Your task to perform on an android device: Open sound settings Image 0: 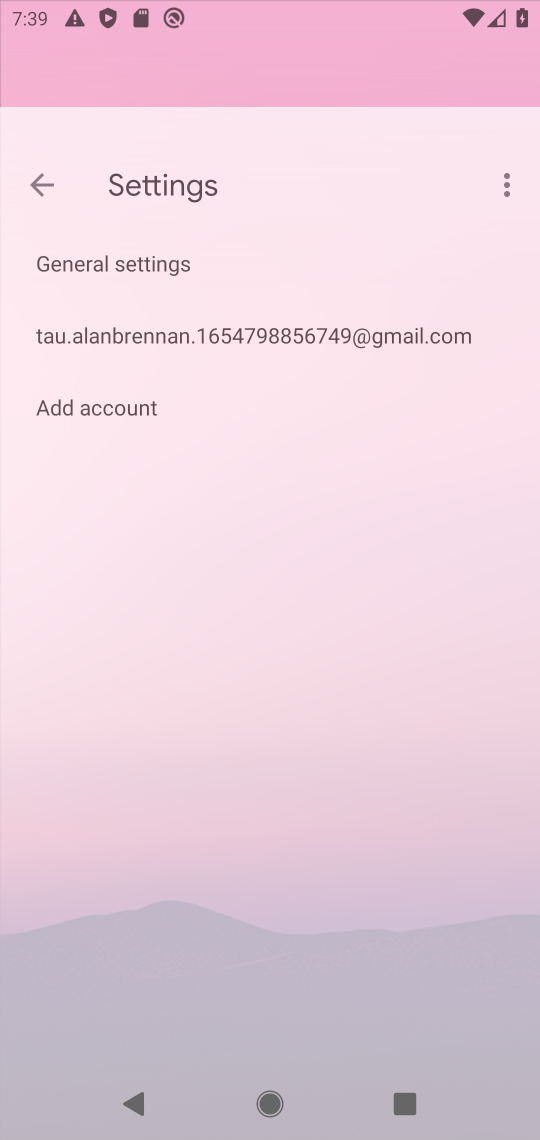
Step 0: press home button
Your task to perform on an android device: Open sound settings Image 1: 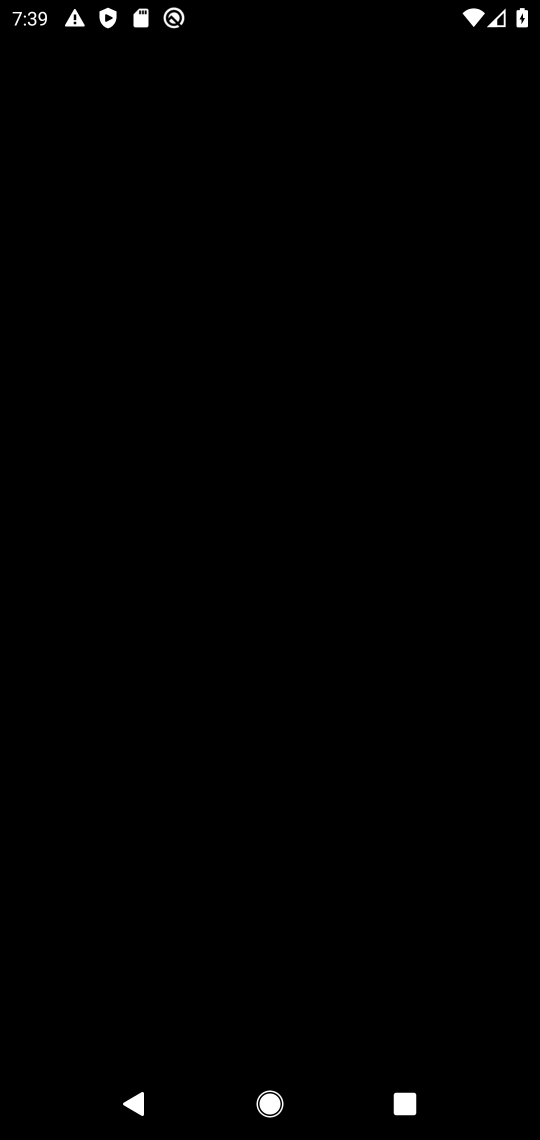
Step 1: press home button
Your task to perform on an android device: Open sound settings Image 2: 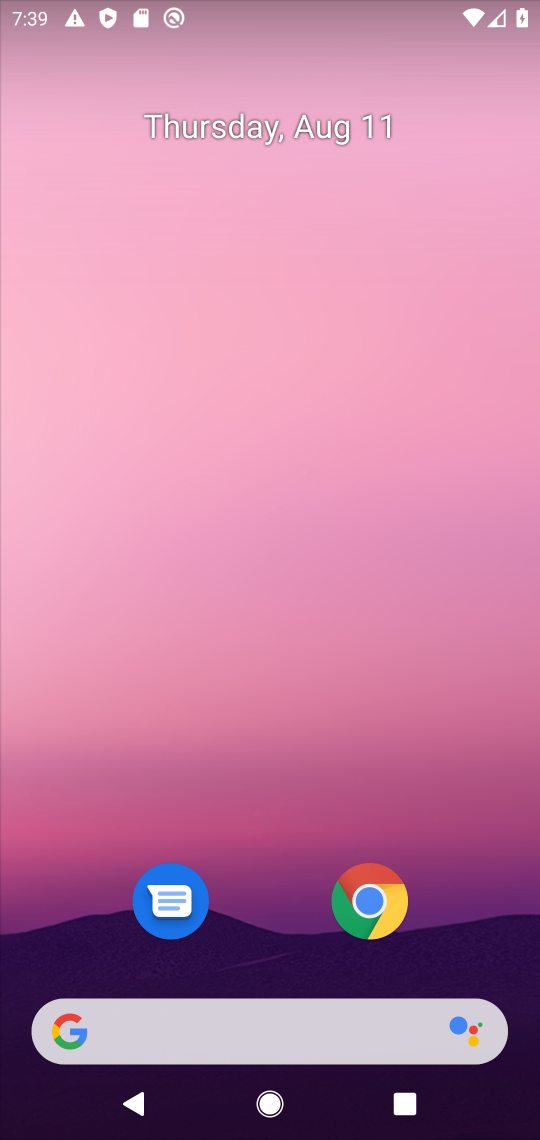
Step 2: drag from (314, 949) to (431, 84)
Your task to perform on an android device: Open sound settings Image 3: 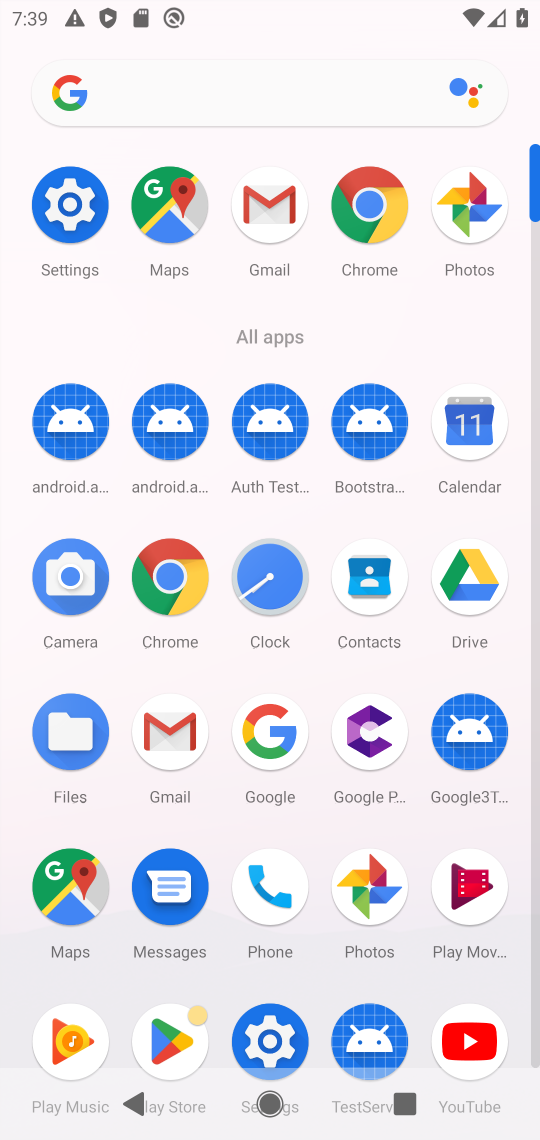
Step 3: click (166, 582)
Your task to perform on an android device: Open sound settings Image 4: 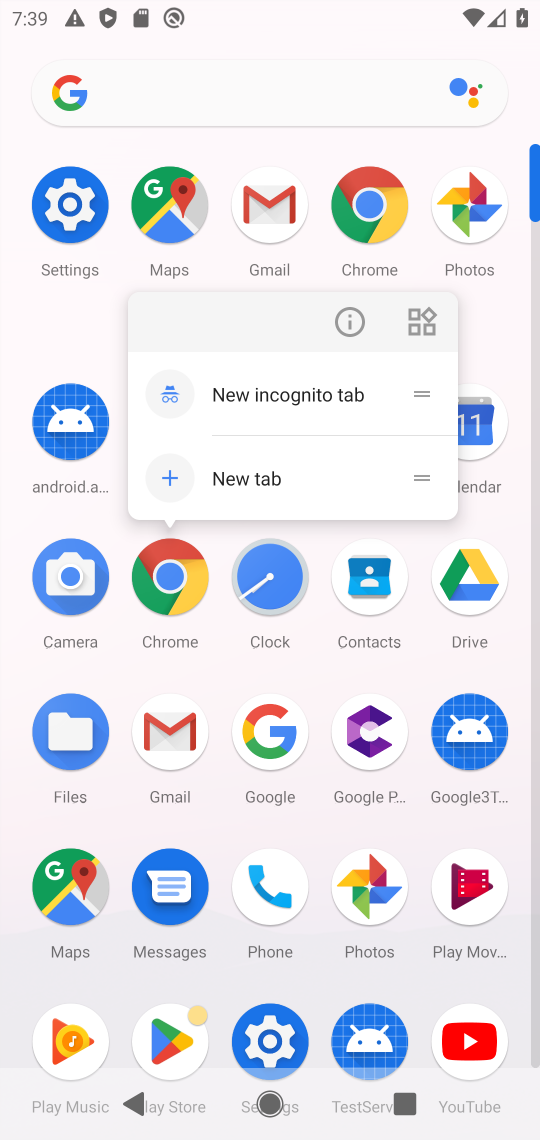
Step 4: click (171, 577)
Your task to perform on an android device: Open sound settings Image 5: 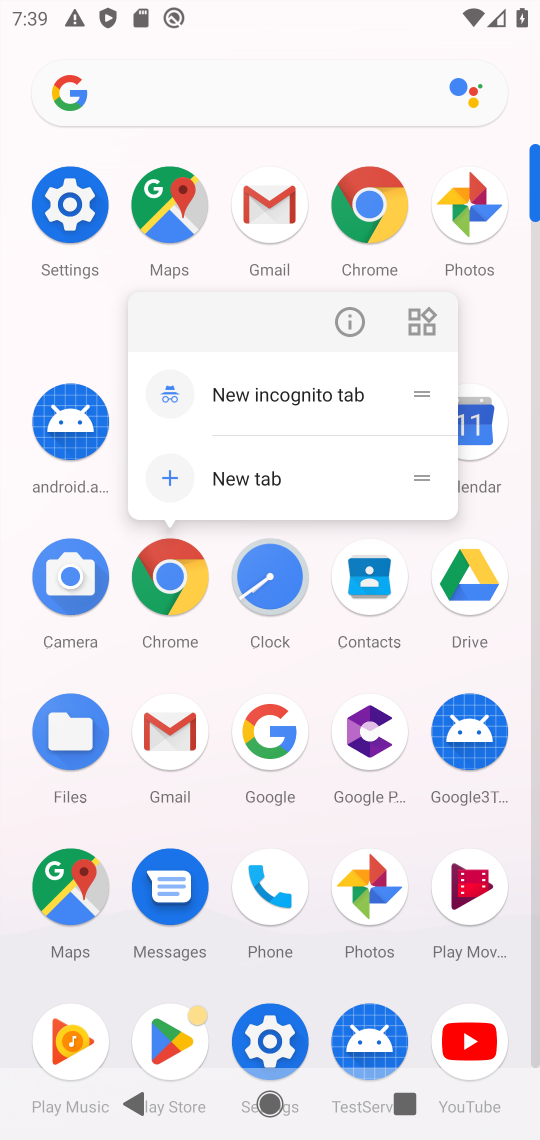
Step 5: click (181, 589)
Your task to perform on an android device: Open sound settings Image 6: 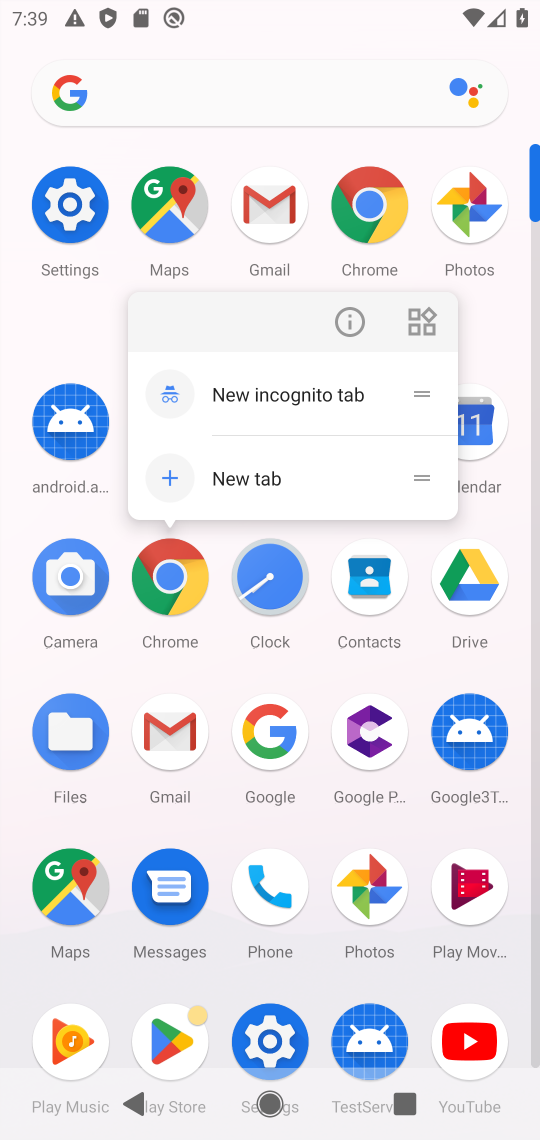
Step 6: click (143, 666)
Your task to perform on an android device: Open sound settings Image 7: 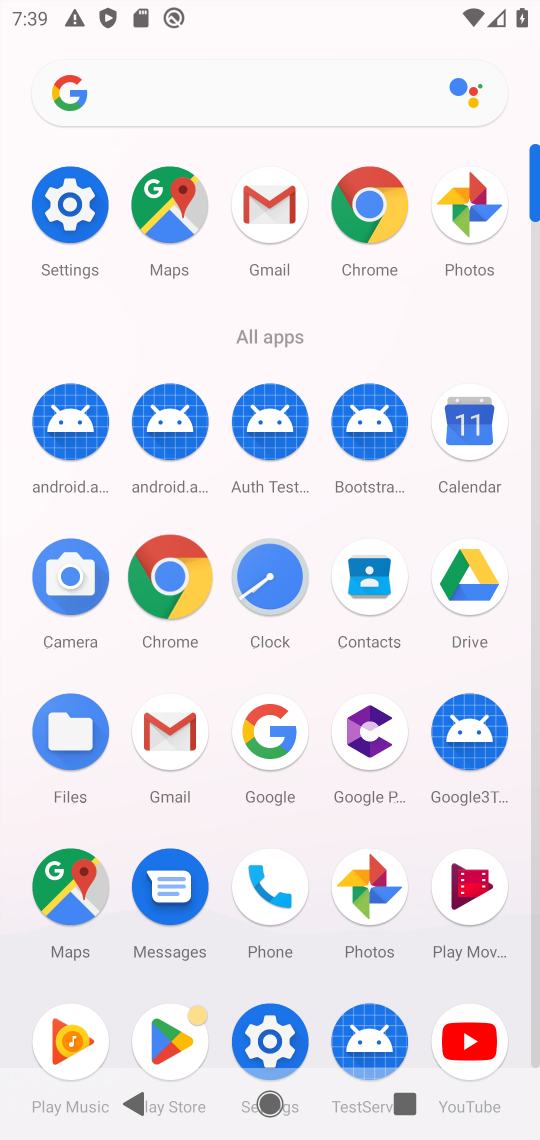
Step 7: click (164, 586)
Your task to perform on an android device: Open sound settings Image 8: 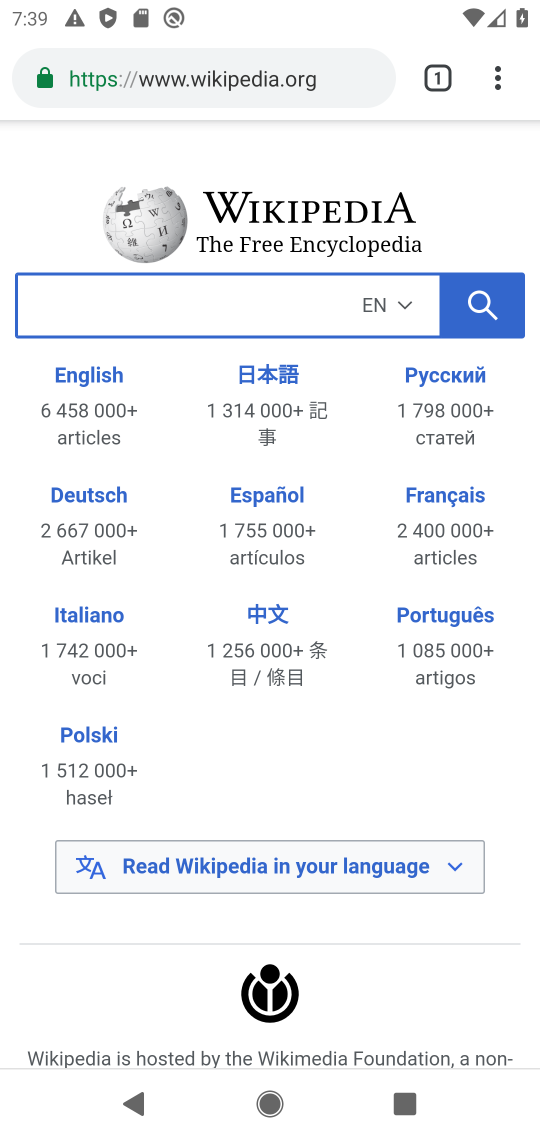
Step 8: click (191, 81)
Your task to perform on an android device: Open sound settings Image 9: 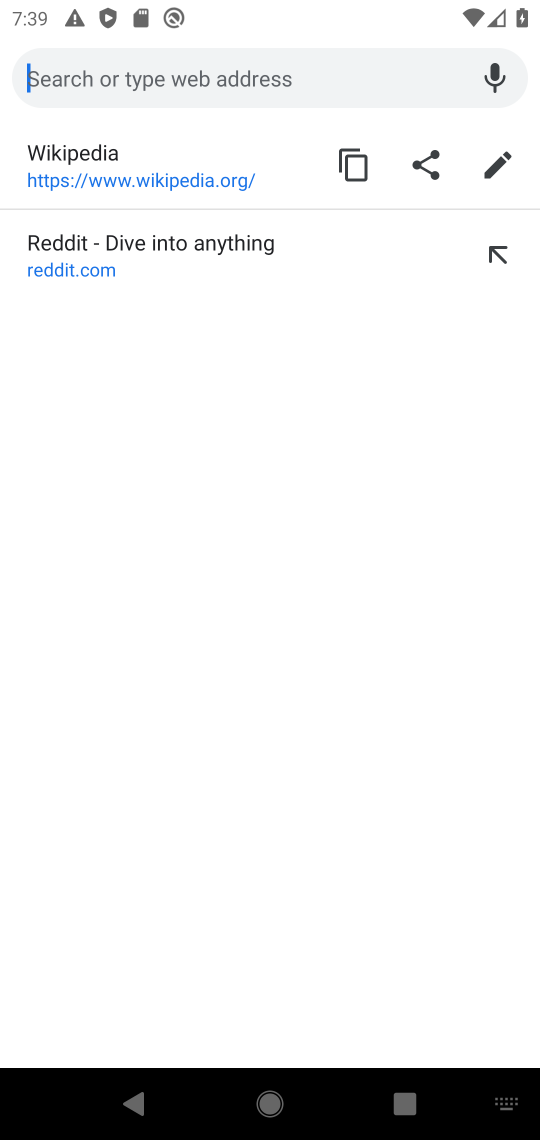
Step 9: press home button
Your task to perform on an android device: Open sound settings Image 10: 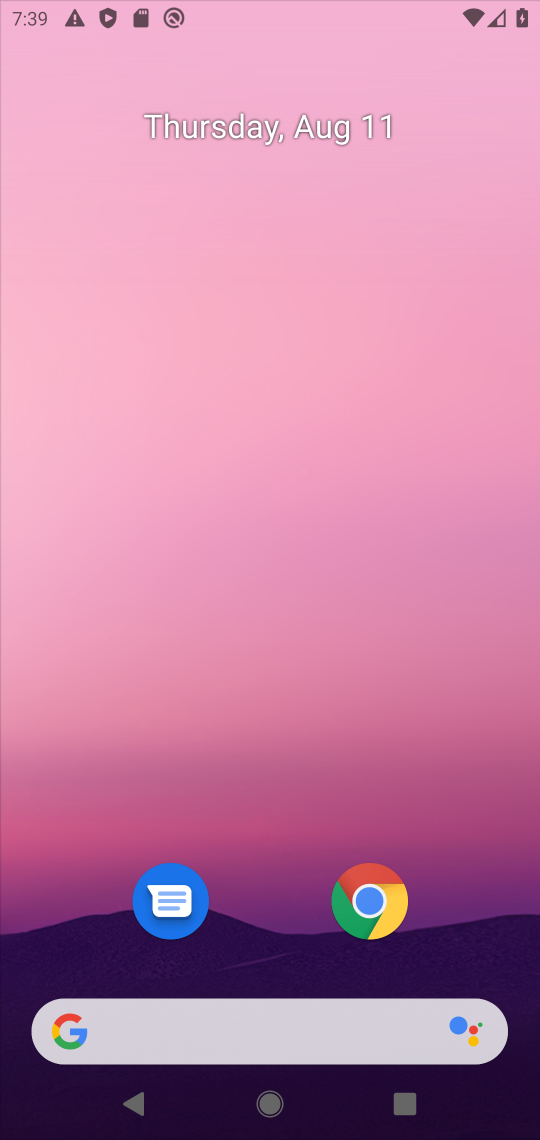
Step 10: press home button
Your task to perform on an android device: Open sound settings Image 11: 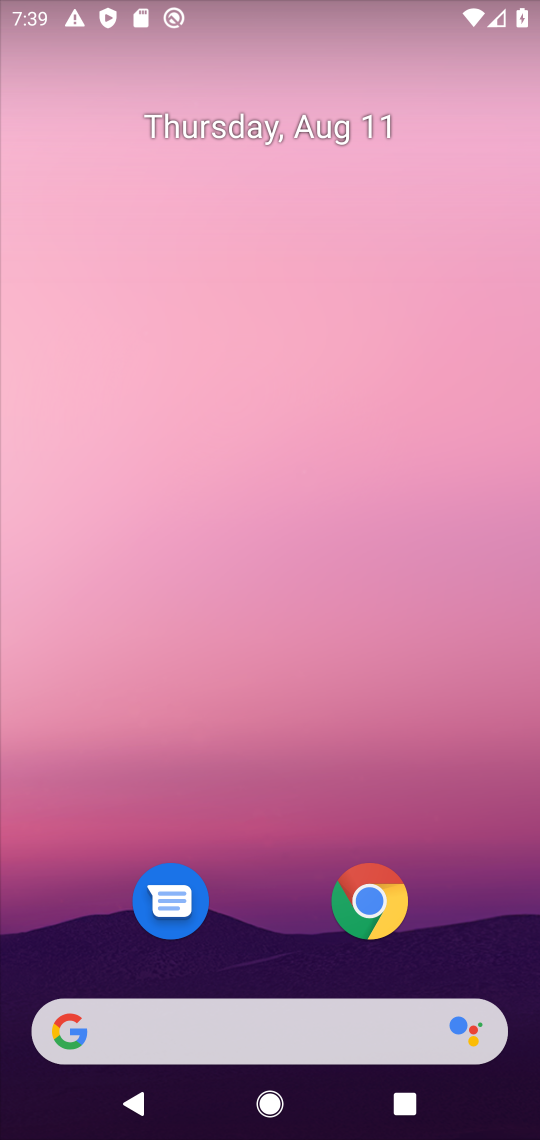
Step 11: drag from (347, 602) to (394, 7)
Your task to perform on an android device: Open sound settings Image 12: 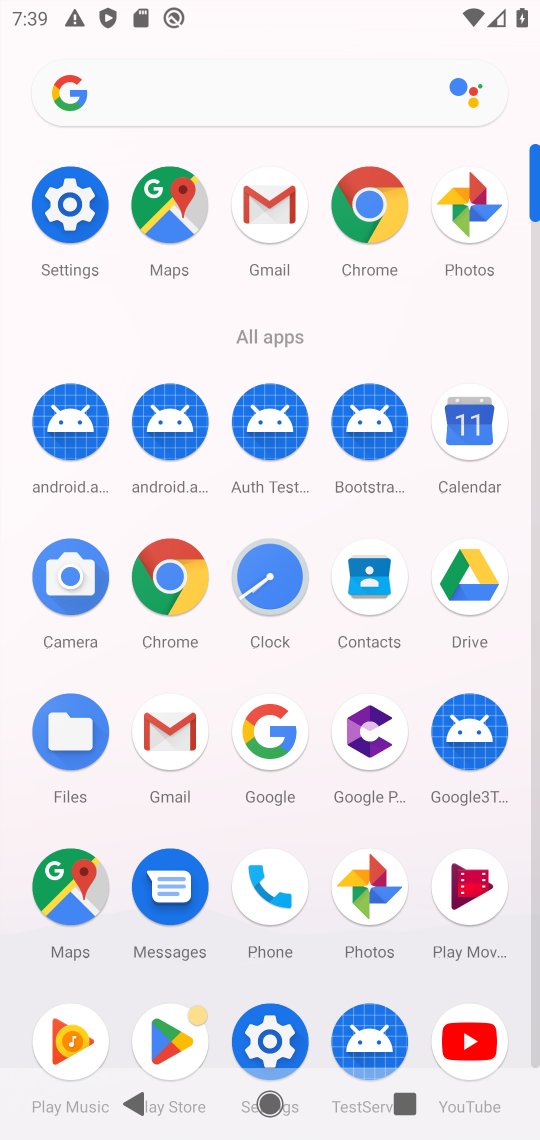
Step 12: click (270, 1042)
Your task to perform on an android device: Open sound settings Image 13: 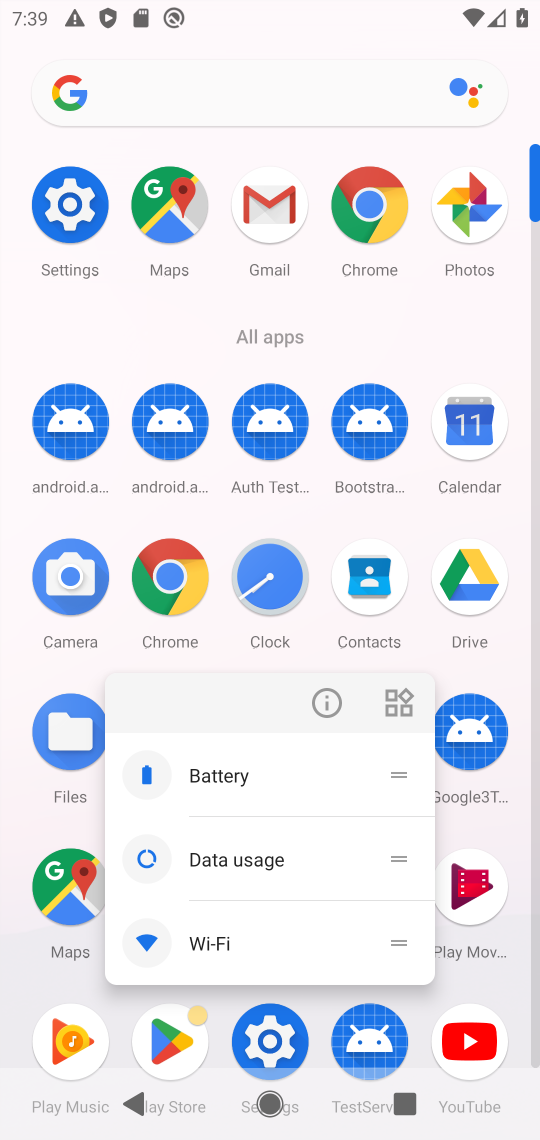
Step 13: click (270, 1042)
Your task to perform on an android device: Open sound settings Image 14: 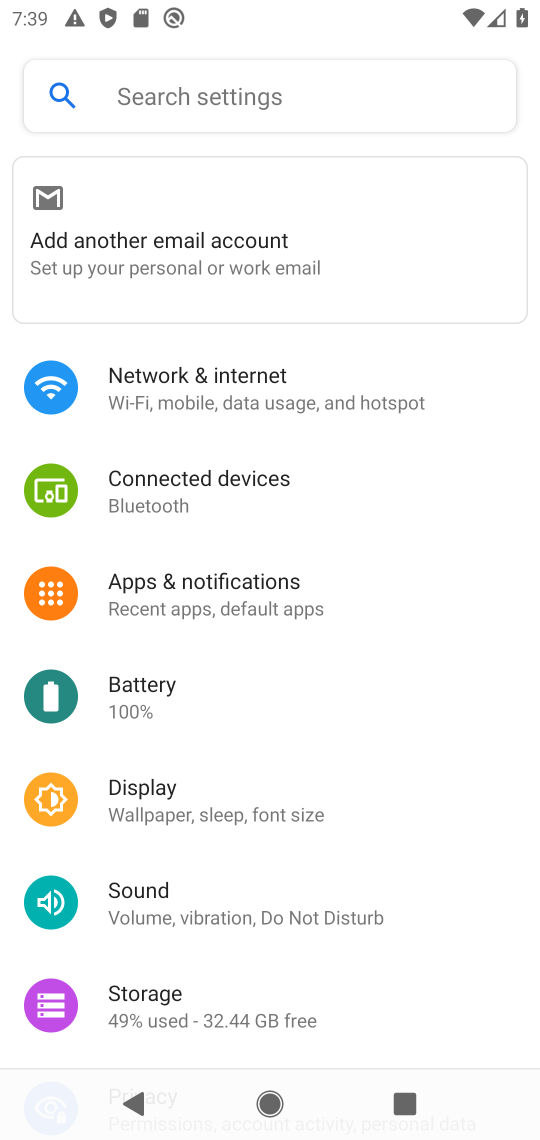
Step 14: click (142, 905)
Your task to perform on an android device: Open sound settings Image 15: 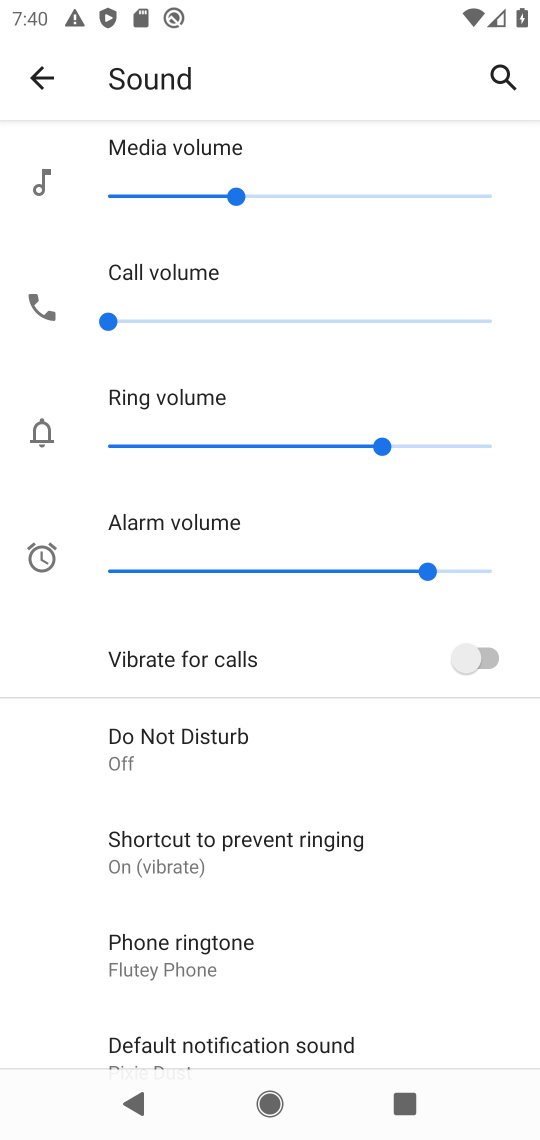
Step 15: task complete